Your task to perform on an android device: check google app version Image 0: 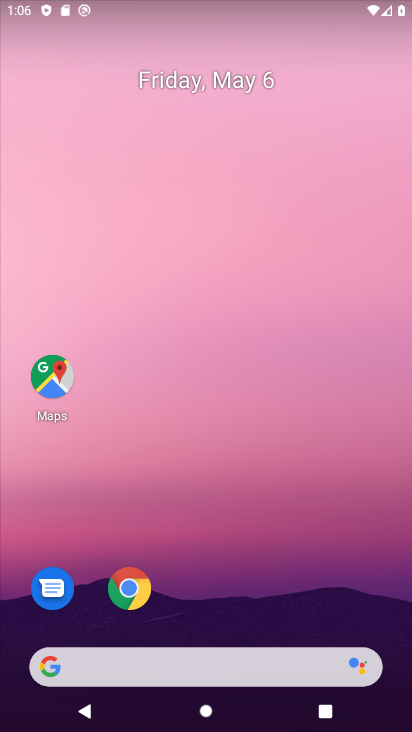
Step 0: drag from (343, 583) to (312, 181)
Your task to perform on an android device: check google app version Image 1: 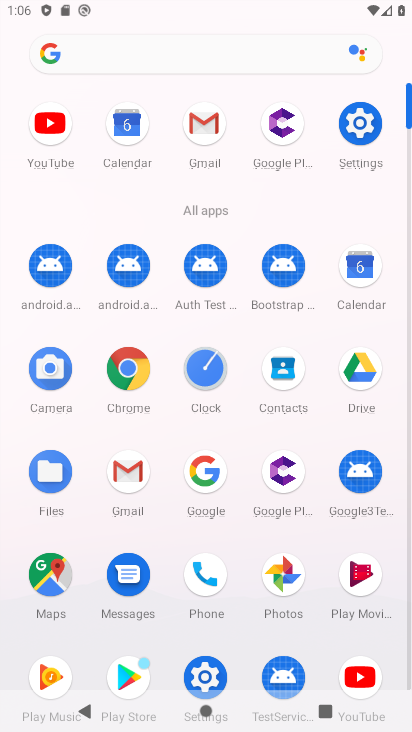
Step 1: click (208, 482)
Your task to perform on an android device: check google app version Image 2: 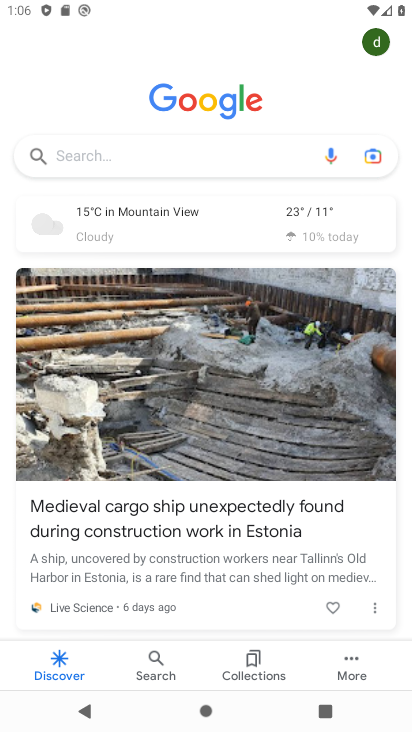
Step 2: click (357, 669)
Your task to perform on an android device: check google app version Image 3: 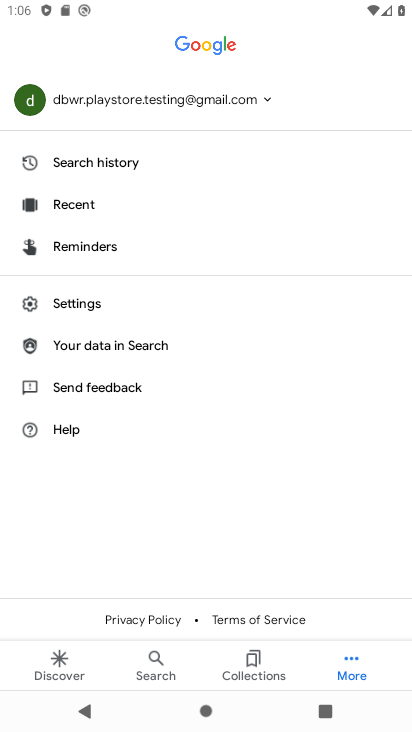
Step 3: click (117, 300)
Your task to perform on an android device: check google app version Image 4: 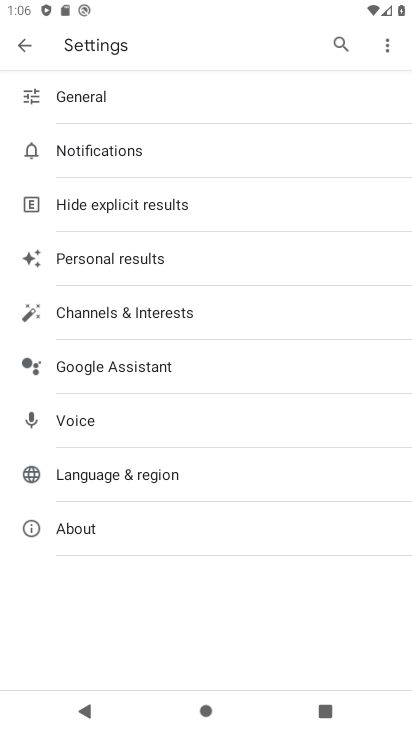
Step 4: click (88, 529)
Your task to perform on an android device: check google app version Image 5: 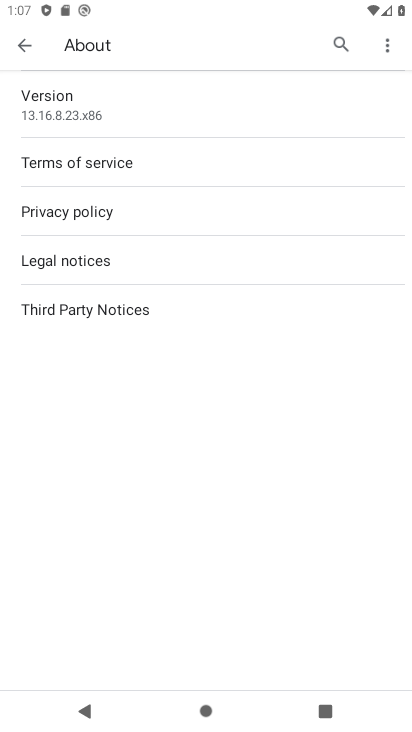
Step 5: task complete